Your task to perform on an android device: uninstall "Upside-Cash back on gas & food" Image 0: 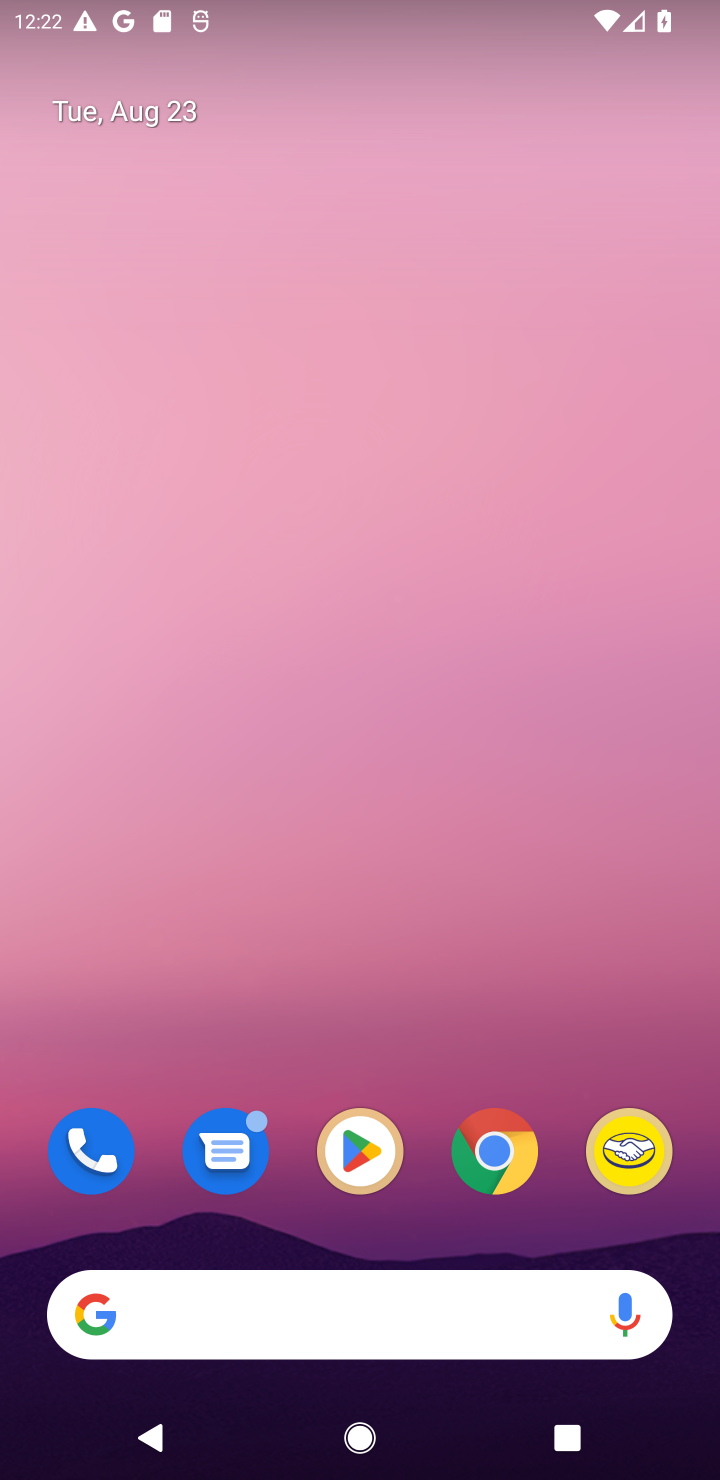
Step 0: click (350, 1132)
Your task to perform on an android device: uninstall "Upside-Cash back on gas & food" Image 1: 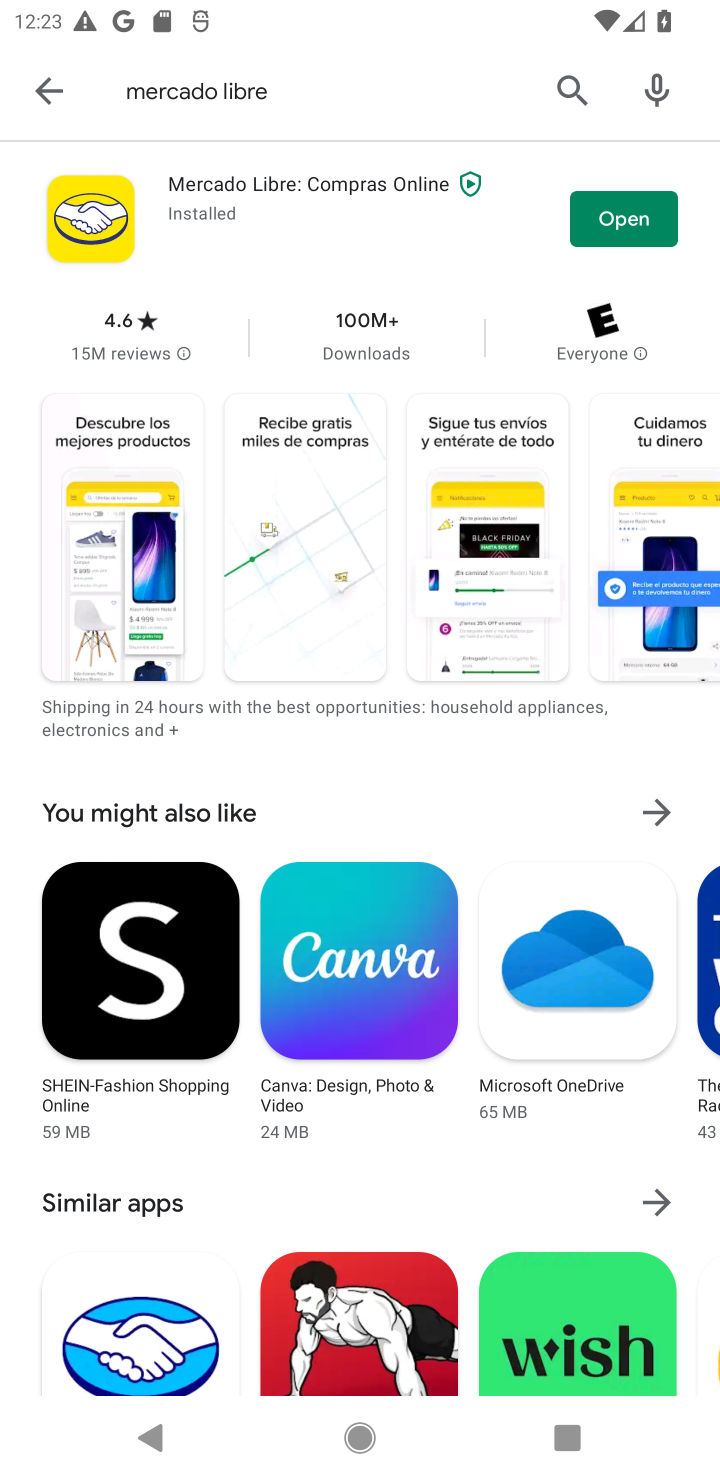
Step 1: click (622, 88)
Your task to perform on an android device: uninstall "Upside-Cash back on gas & food" Image 2: 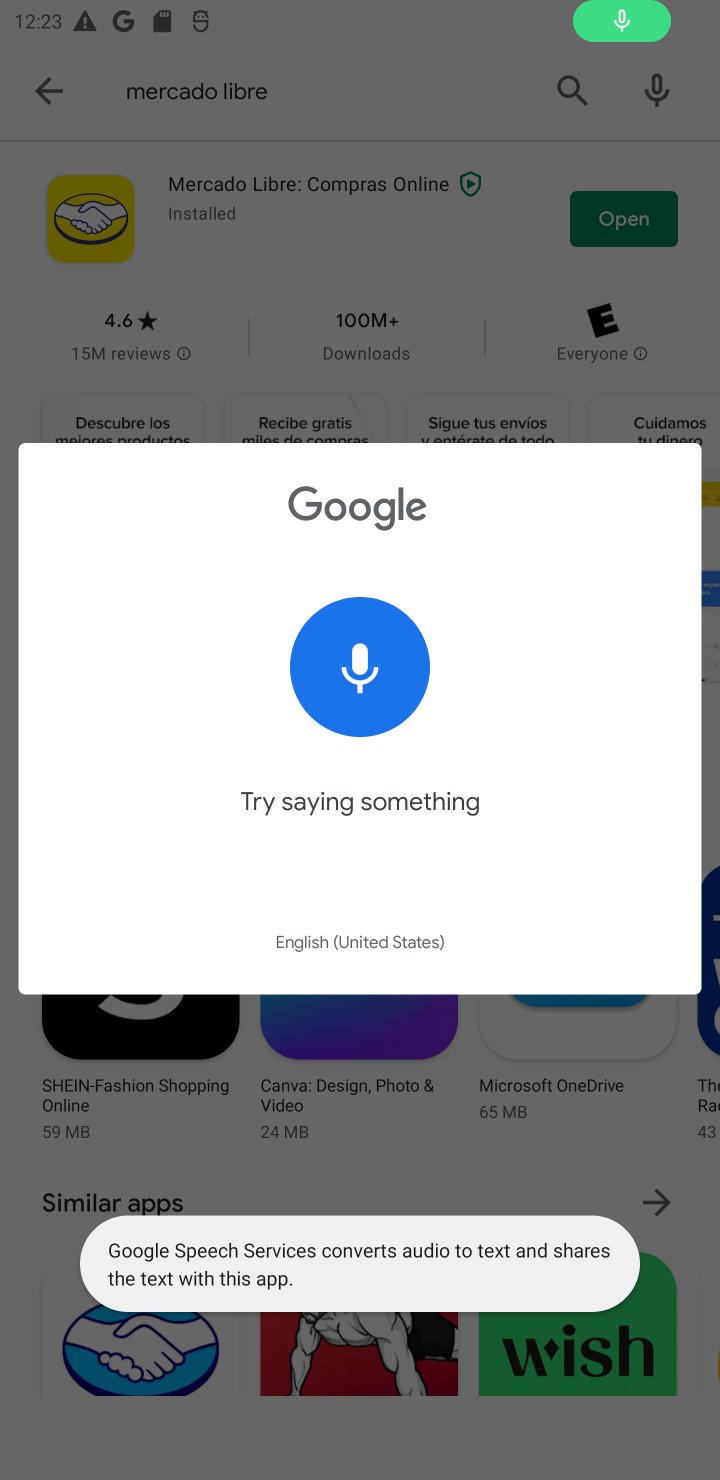
Step 2: click (582, 88)
Your task to perform on an android device: uninstall "Upside-Cash back on gas & food" Image 3: 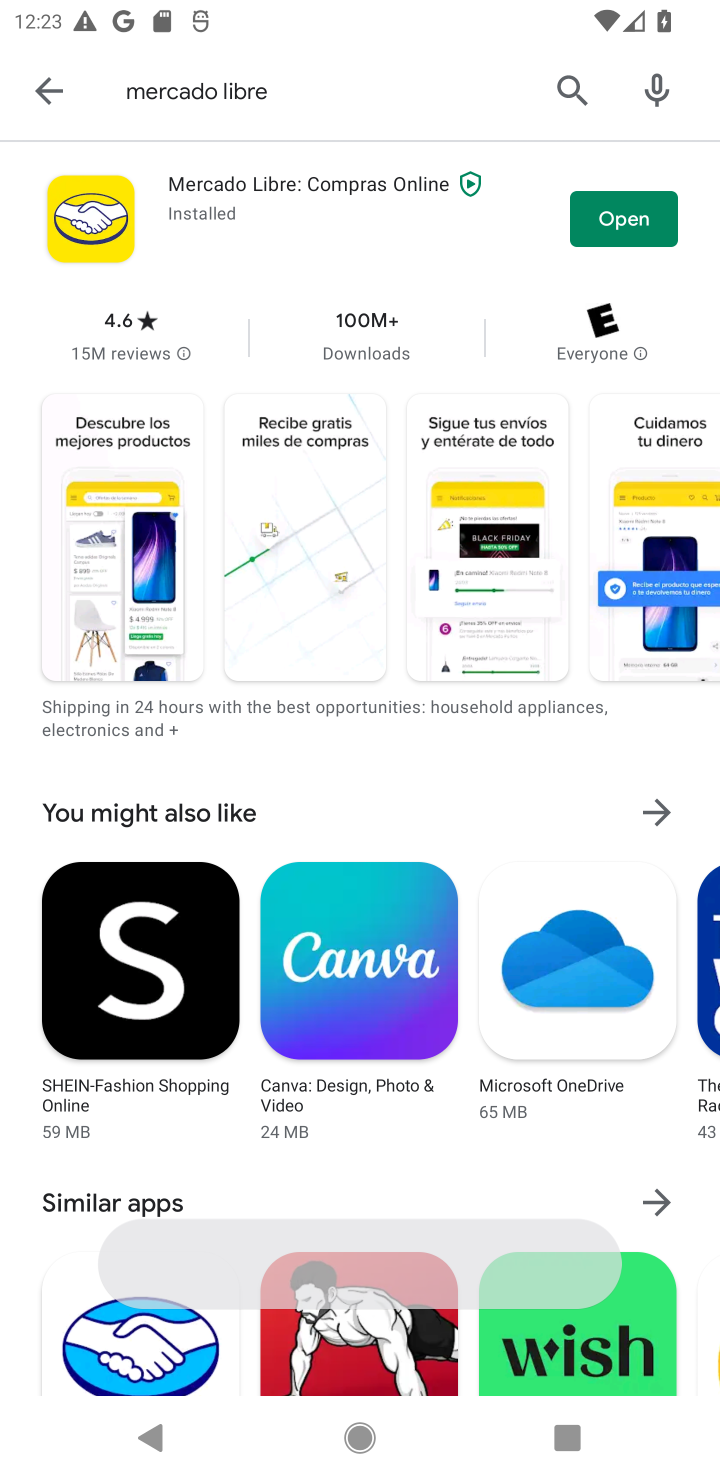
Step 3: click (578, 92)
Your task to perform on an android device: uninstall "Upside-Cash back on gas & food" Image 4: 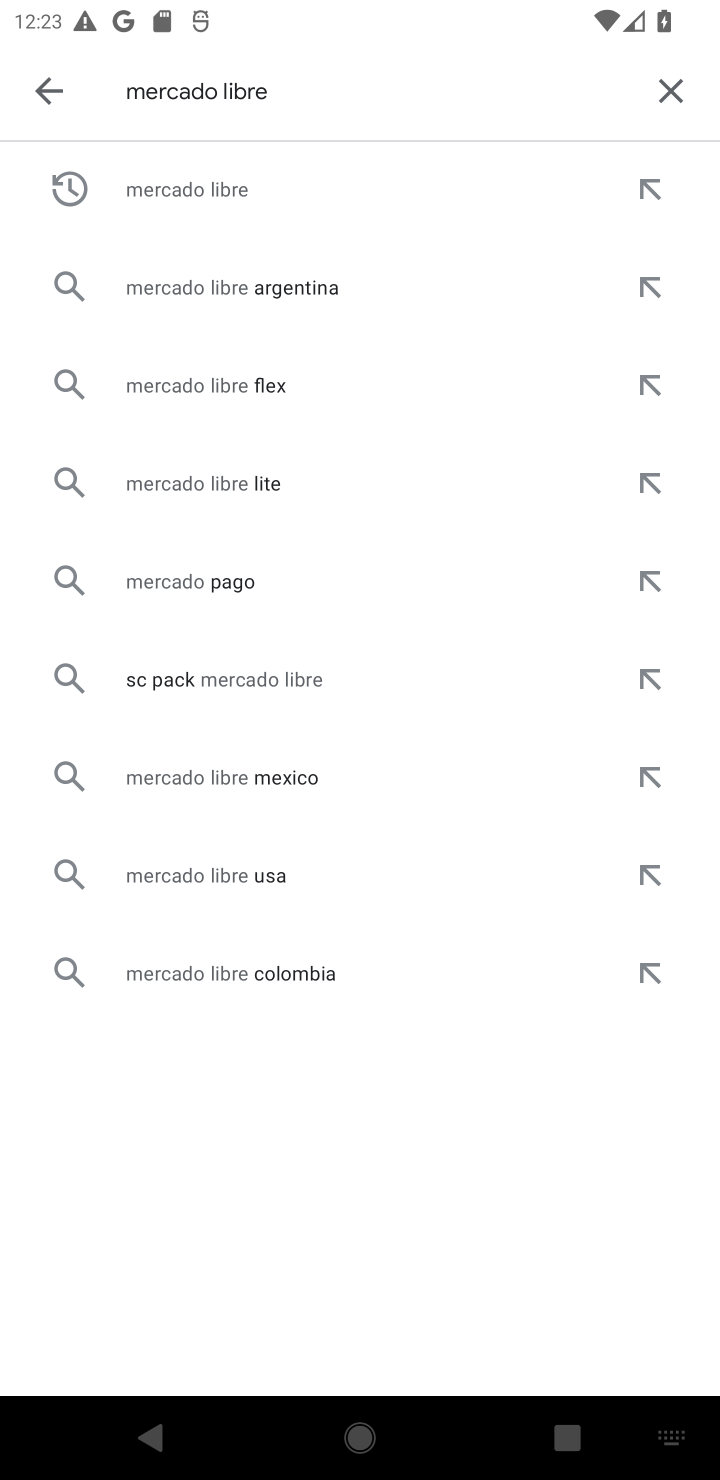
Step 4: click (664, 95)
Your task to perform on an android device: uninstall "Upside-Cash back on gas & food" Image 5: 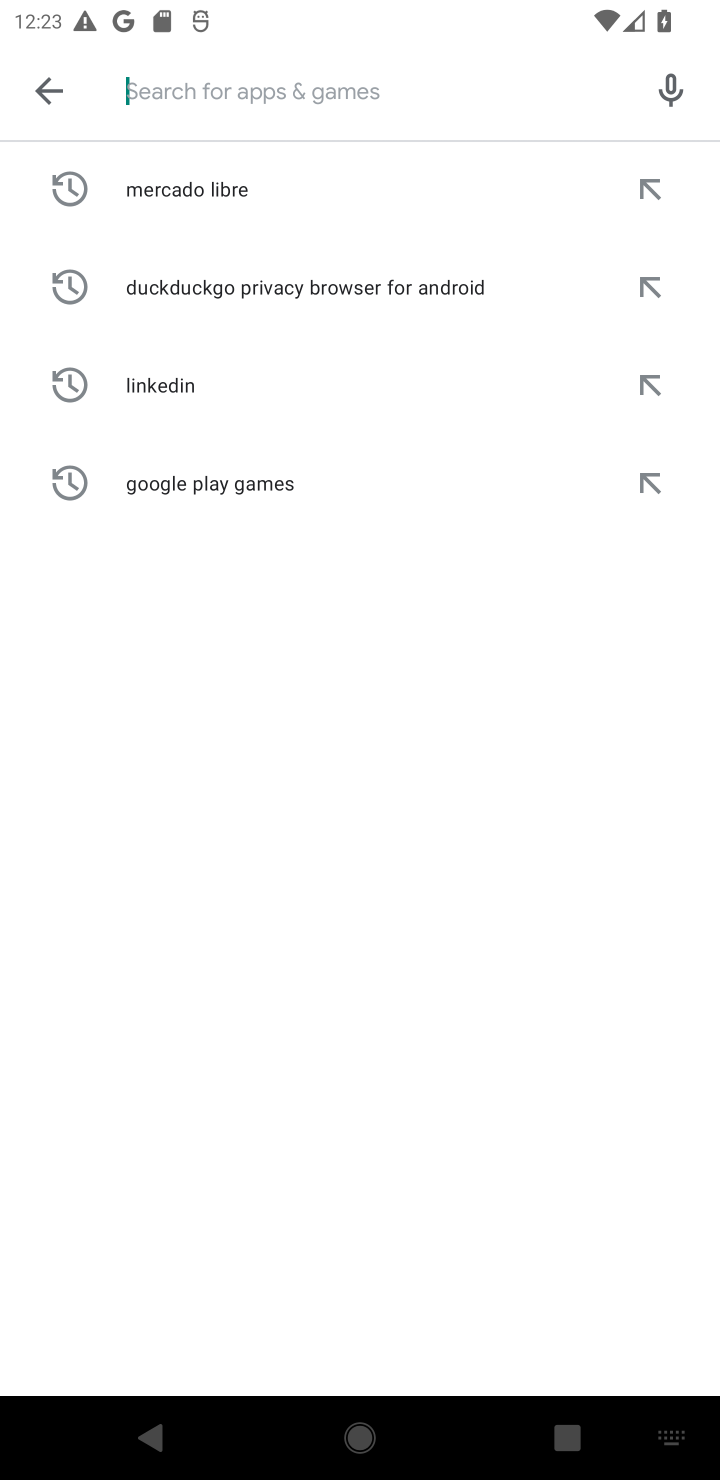
Step 5: type "Upside-Cash back on gas & food"
Your task to perform on an android device: uninstall "Upside-Cash back on gas & food" Image 6: 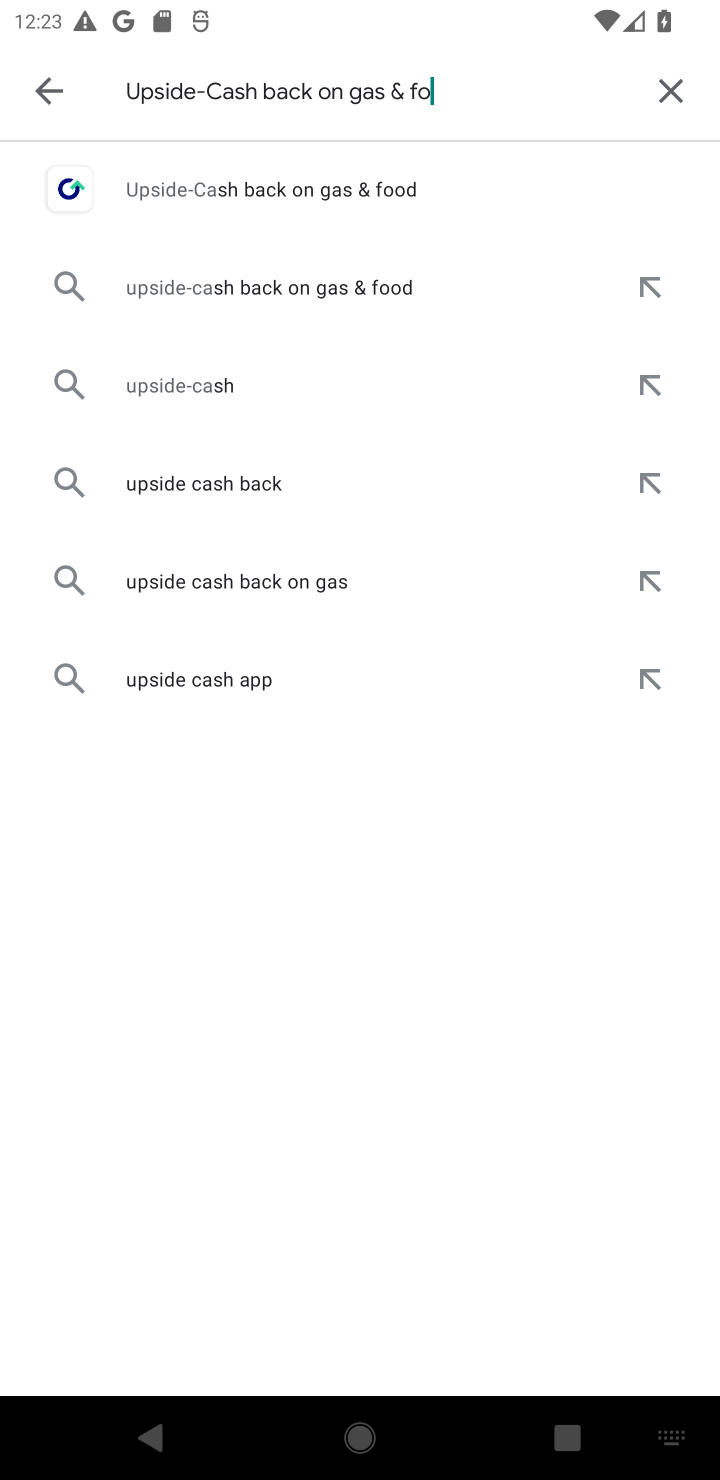
Step 6: type ""
Your task to perform on an android device: uninstall "Upside-Cash back on gas & food" Image 7: 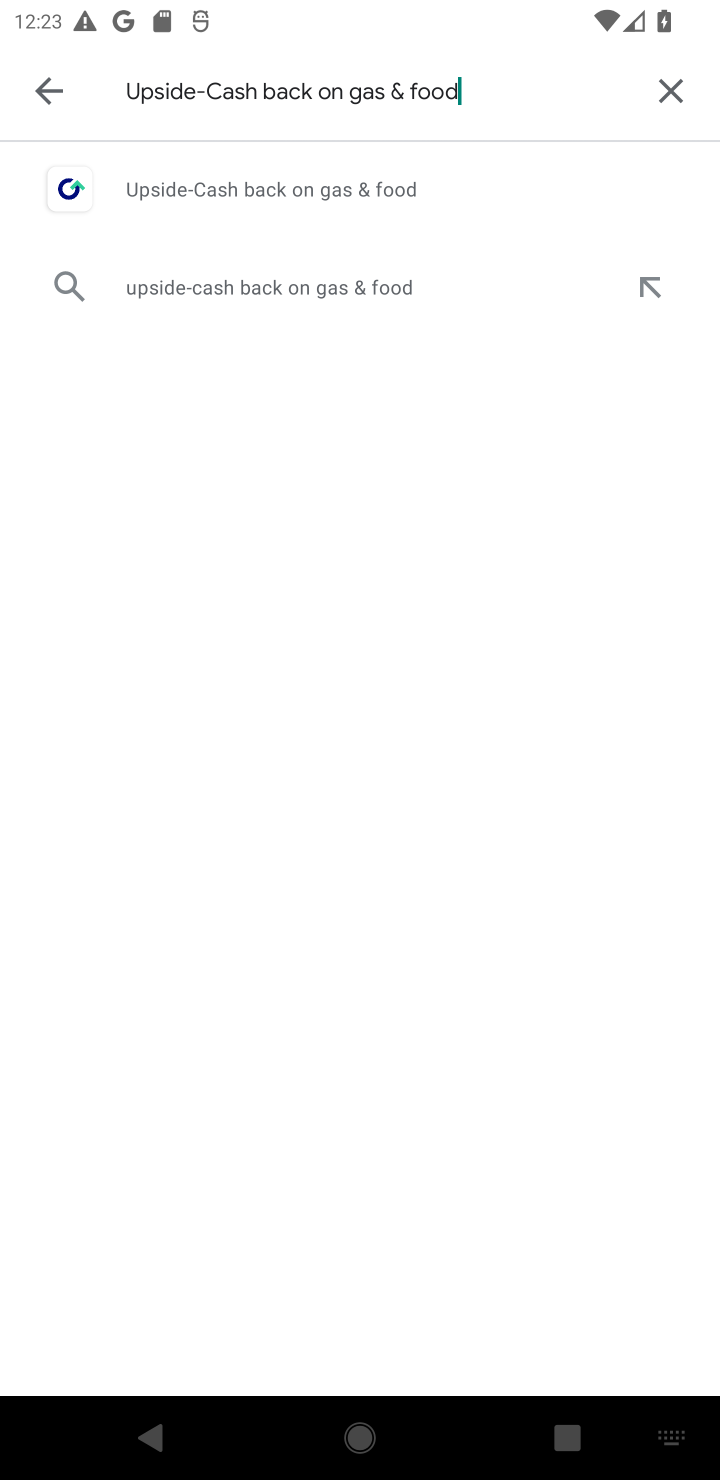
Step 7: click (343, 184)
Your task to perform on an android device: uninstall "Upside-Cash back on gas & food" Image 8: 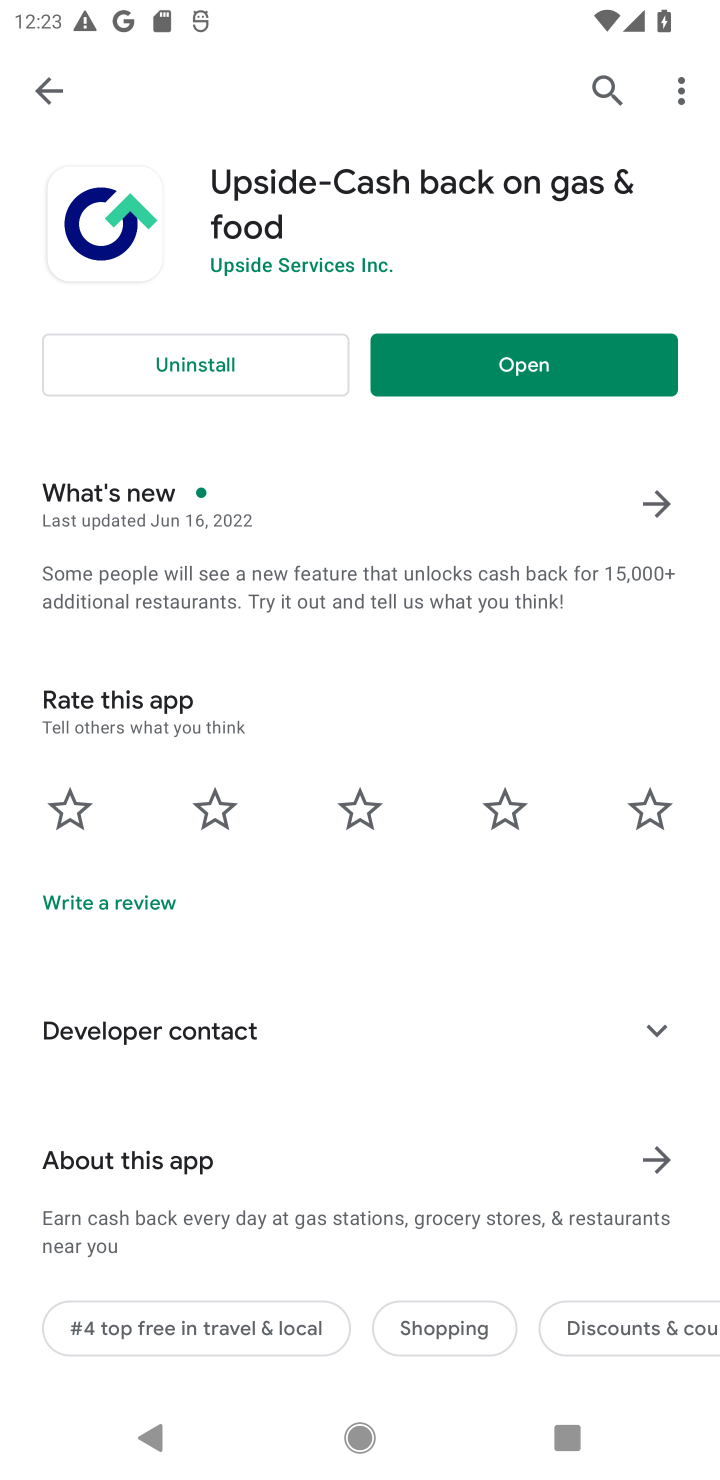
Step 8: click (230, 361)
Your task to perform on an android device: uninstall "Upside-Cash back on gas & food" Image 9: 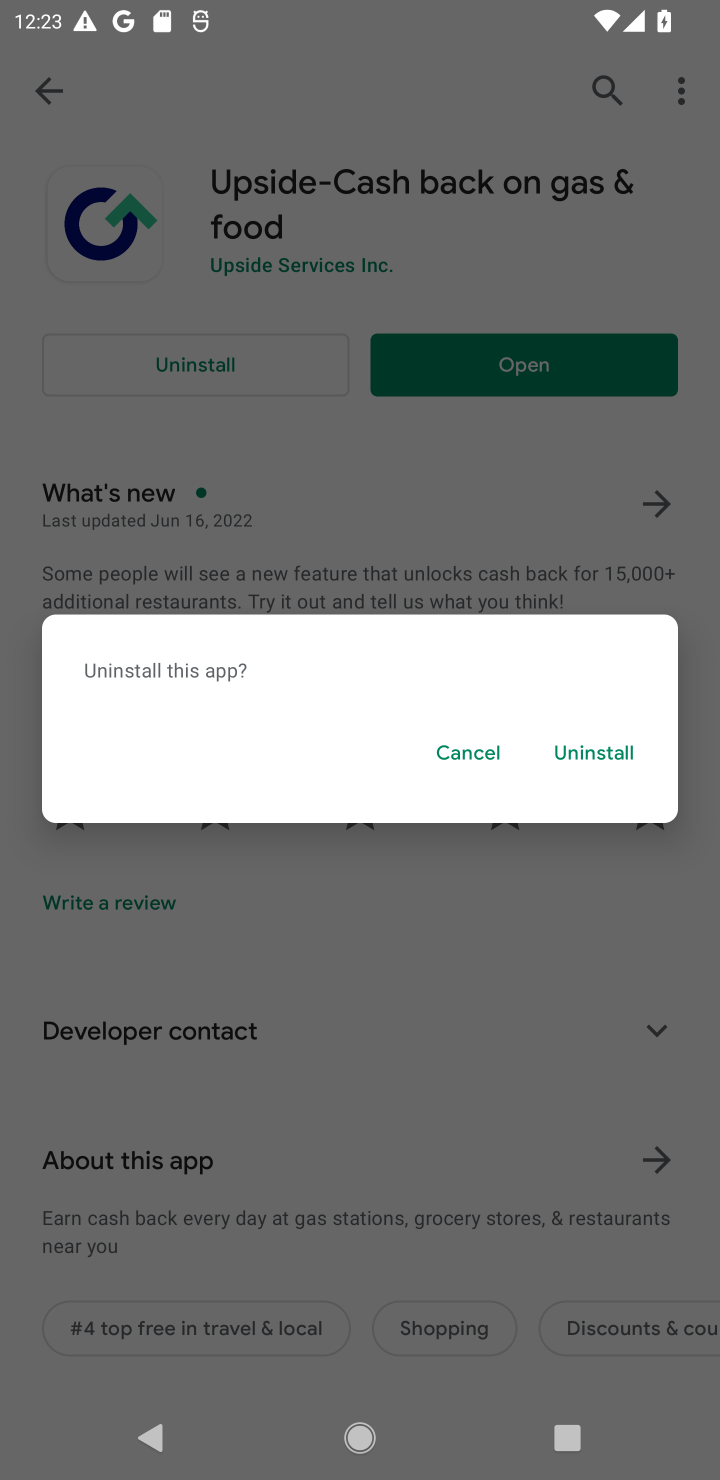
Step 9: click (565, 757)
Your task to perform on an android device: uninstall "Upside-Cash back on gas & food" Image 10: 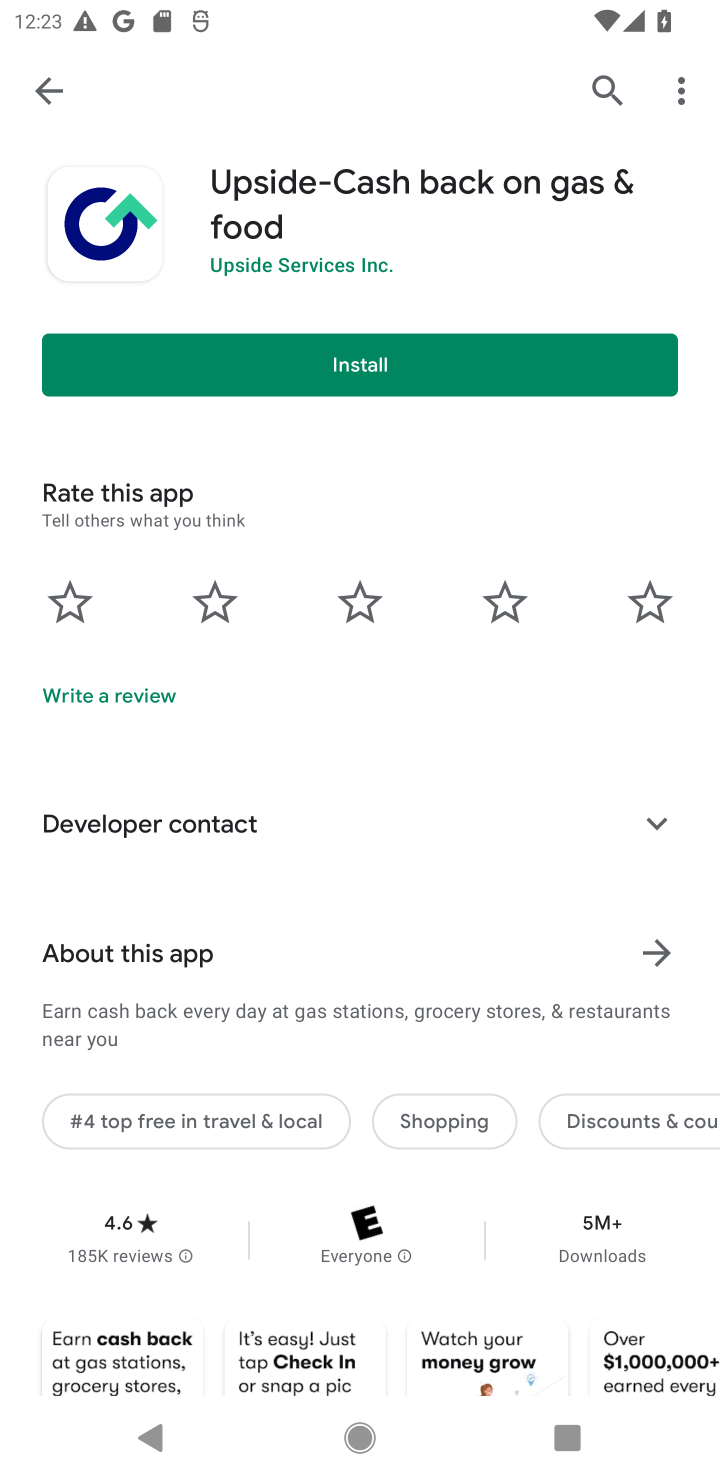
Step 10: task complete